Your task to perform on an android device: open app "ColorNote Notepad Notes" Image 0: 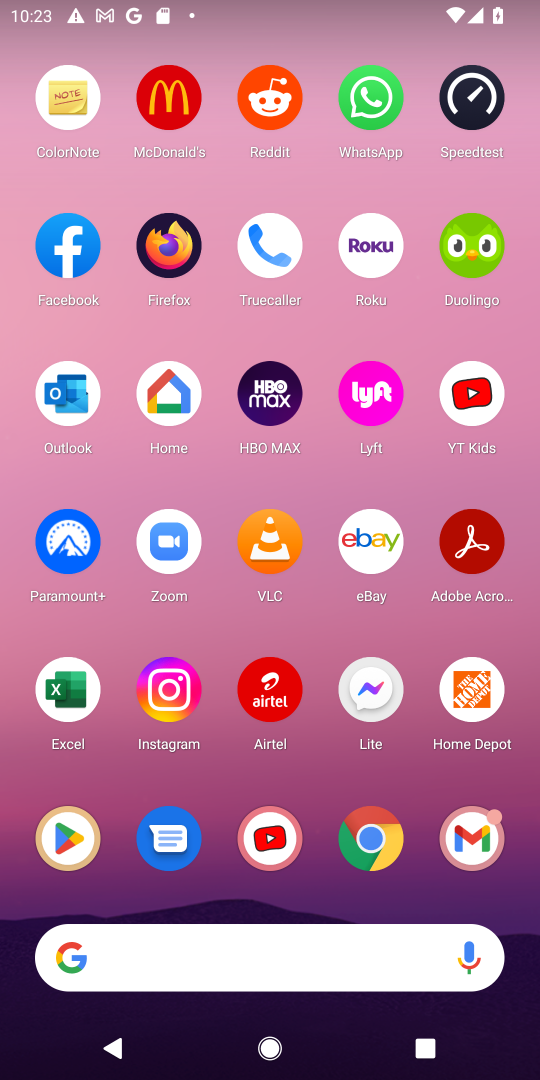
Step 0: press home button
Your task to perform on an android device: open app "ColorNote Notepad Notes" Image 1: 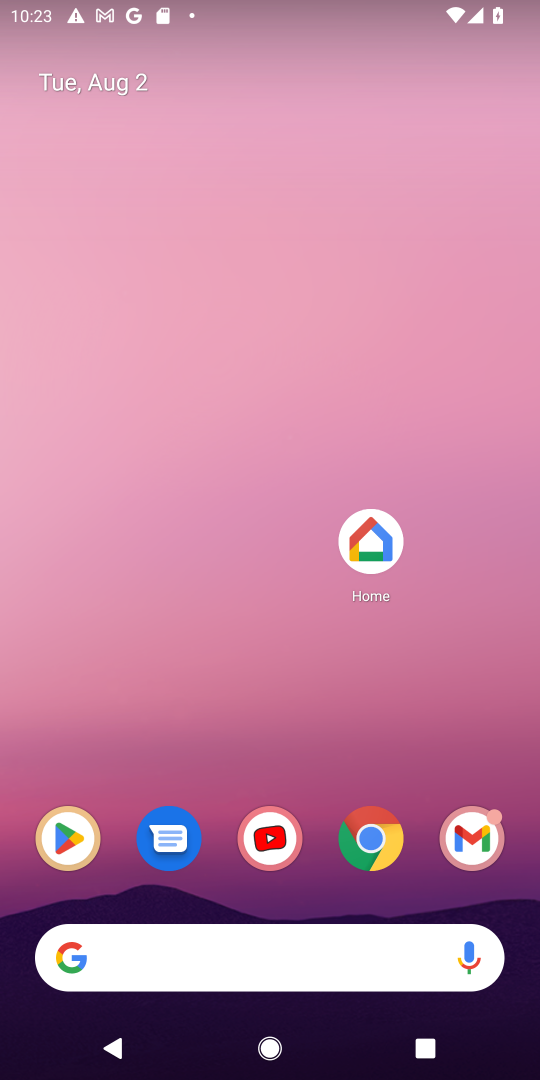
Step 1: drag from (246, 744) to (320, 90)
Your task to perform on an android device: open app "ColorNote Notepad Notes" Image 2: 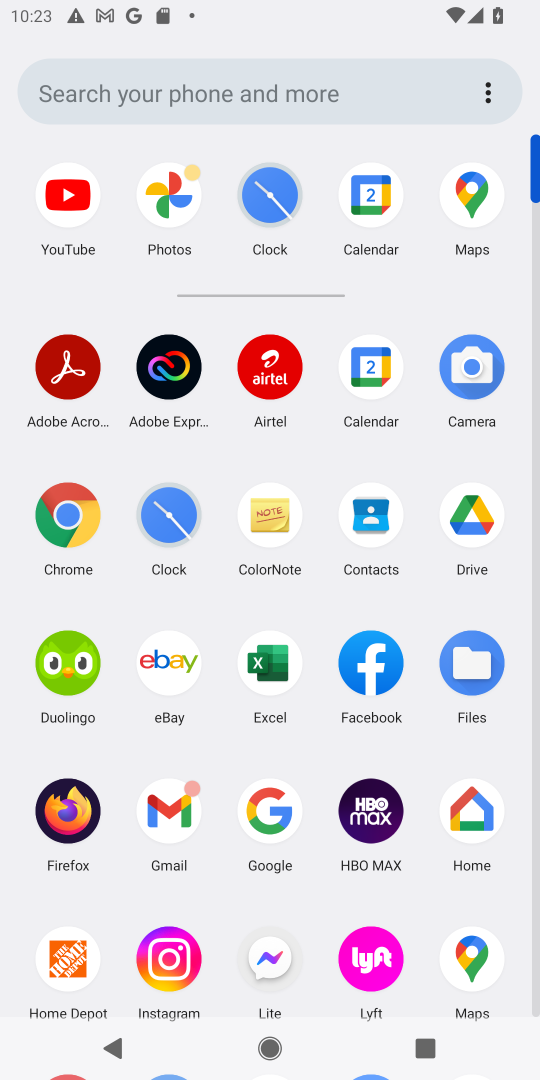
Step 2: drag from (302, 918) to (316, 587)
Your task to perform on an android device: open app "ColorNote Notepad Notes" Image 3: 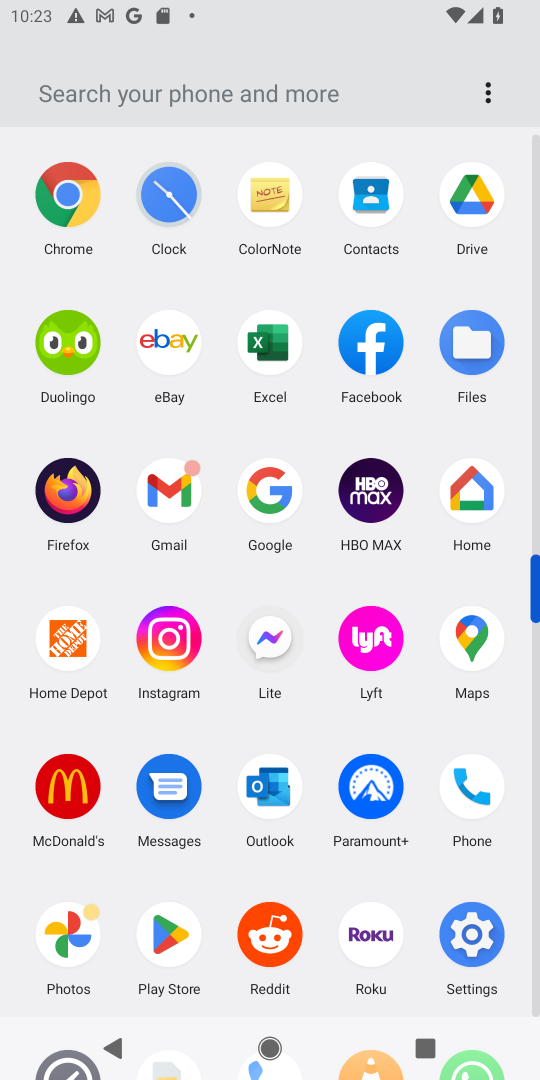
Step 3: drag from (215, 874) to (236, 605)
Your task to perform on an android device: open app "ColorNote Notepad Notes" Image 4: 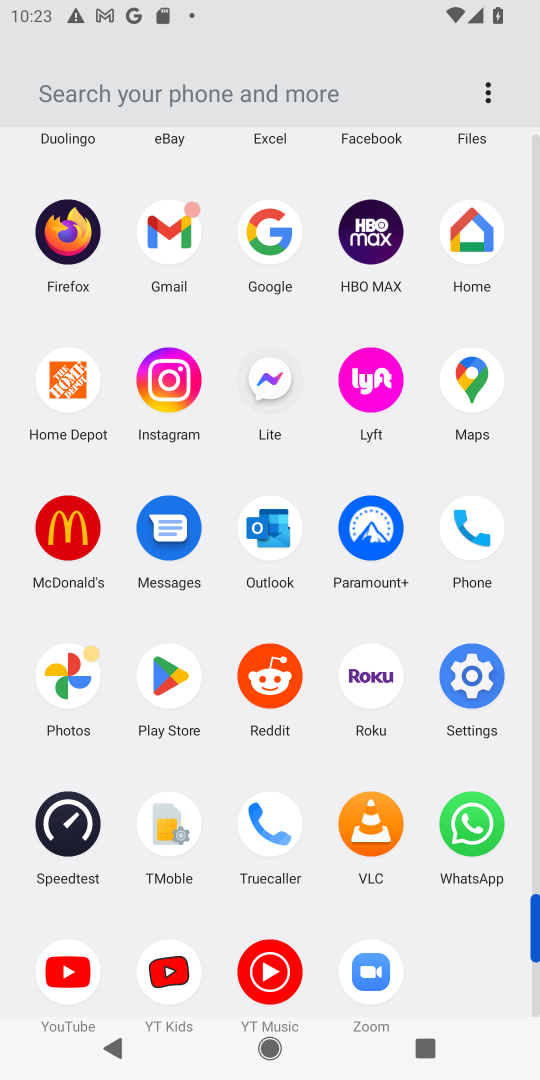
Step 4: click (172, 680)
Your task to perform on an android device: open app "ColorNote Notepad Notes" Image 5: 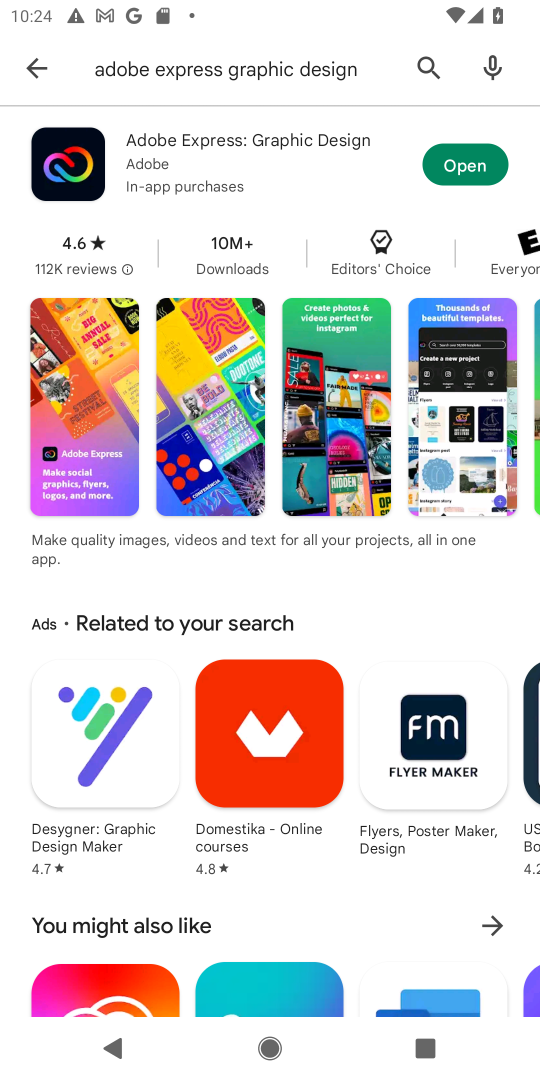
Step 5: click (422, 63)
Your task to perform on an android device: open app "ColorNote Notepad Notes" Image 6: 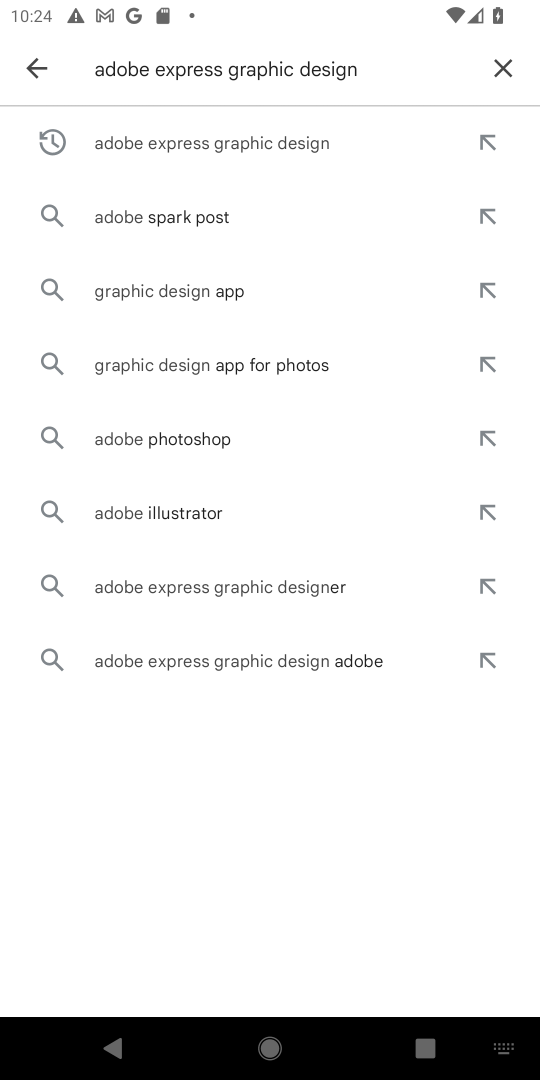
Step 6: click (501, 62)
Your task to perform on an android device: open app "ColorNote Notepad Notes" Image 7: 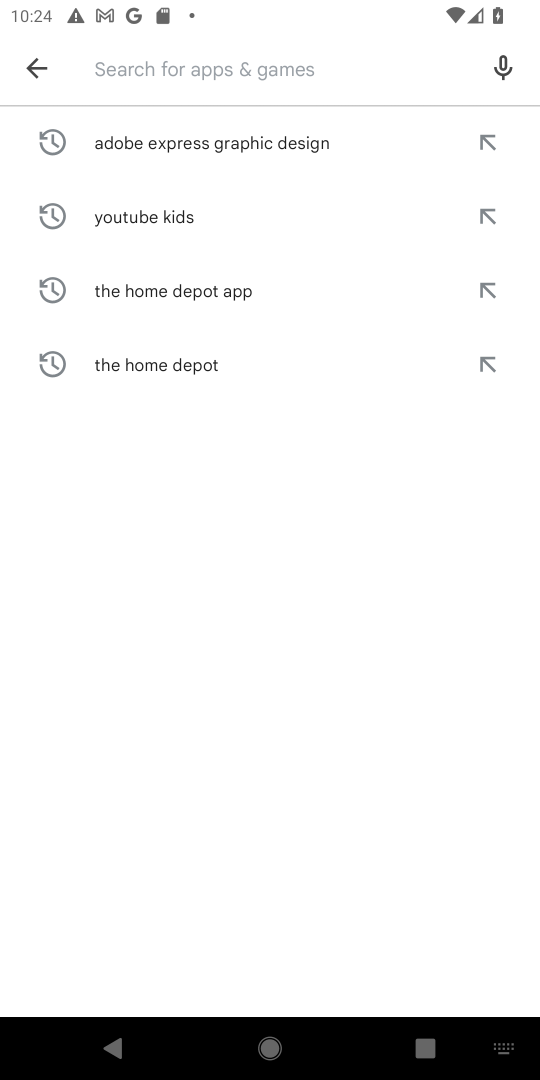
Step 7: click (344, 70)
Your task to perform on an android device: open app "ColorNote Notepad Notes" Image 8: 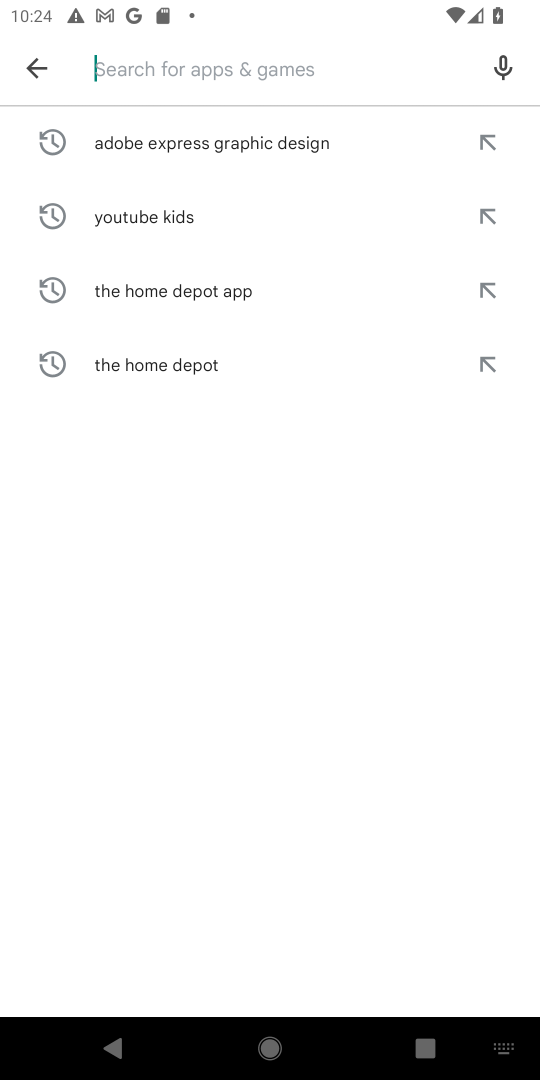
Step 8: type "colornote notepad notes"
Your task to perform on an android device: open app "ColorNote Notepad Notes" Image 9: 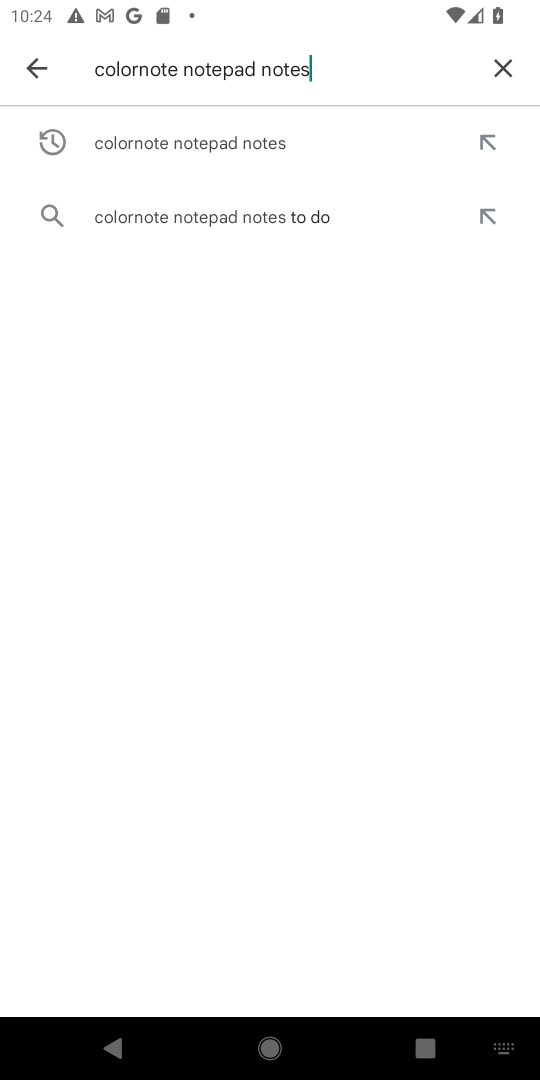
Step 9: click (272, 138)
Your task to perform on an android device: open app "ColorNote Notepad Notes" Image 10: 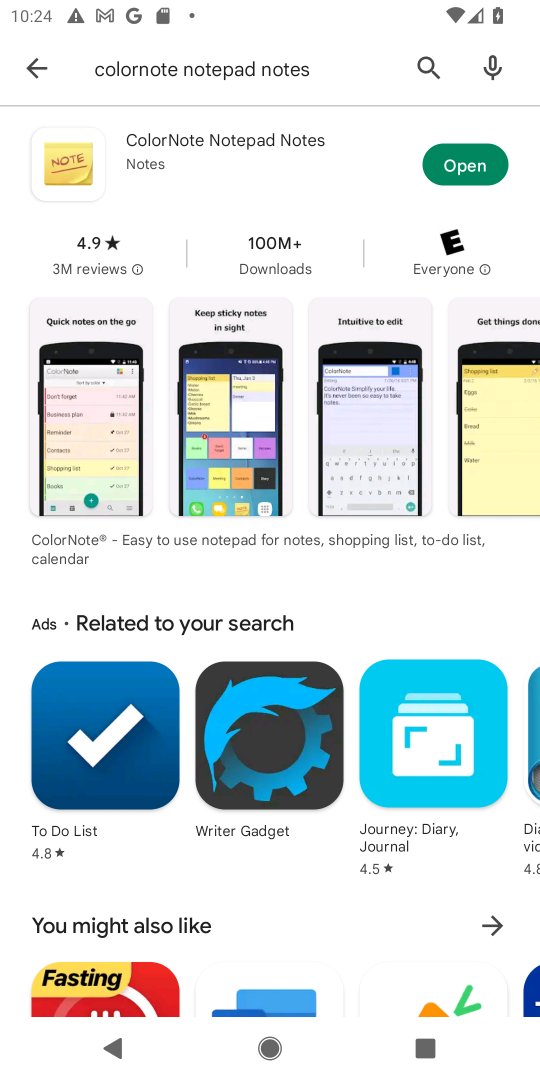
Step 10: click (468, 167)
Your task to perform on an android device: open app "ColorNote Notepad Notes" Image 11: 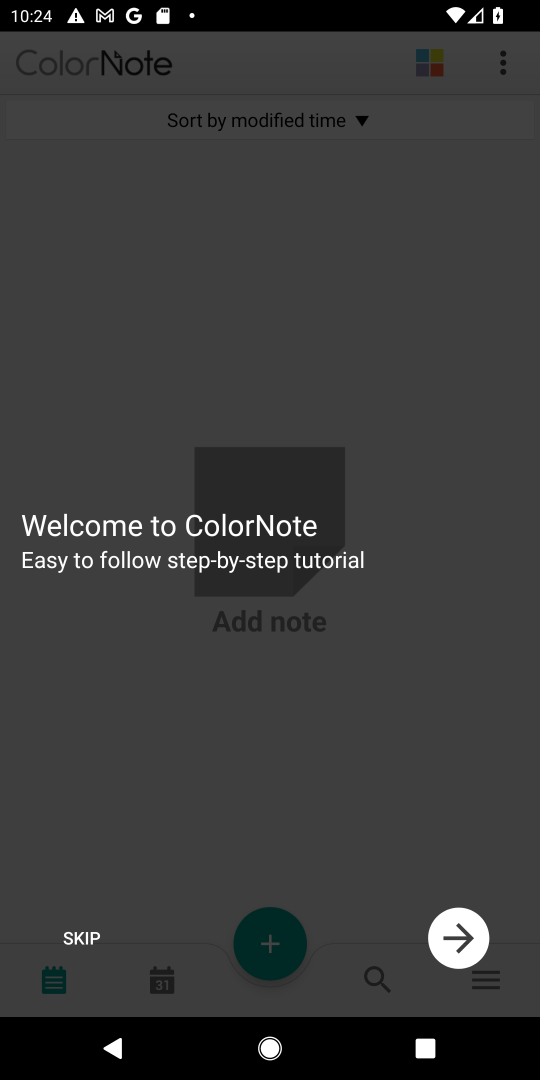
Step 11: task complete